Your task to perform on an android device: turn on location history Image 0: 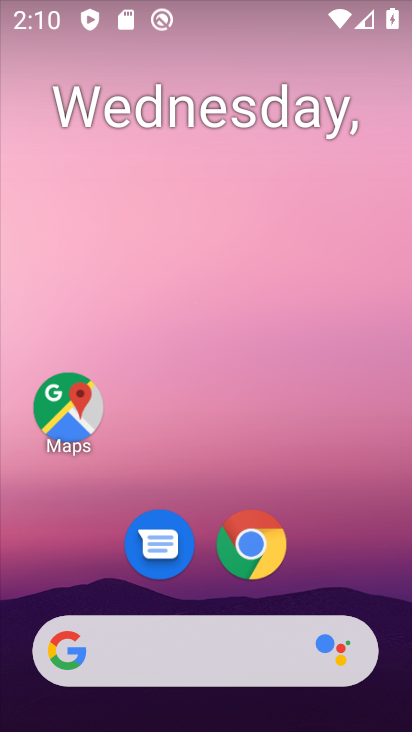
Step 0: drag from (364, 563) to (342, 186)
Your task to perform on an android device: turn on location history Image 1: 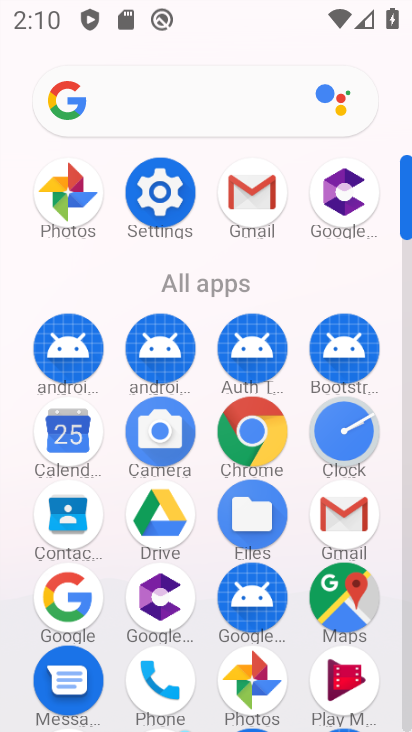
Step 1: click (174, 195)
Your task to perform on an android device: turn on location history Image 2: 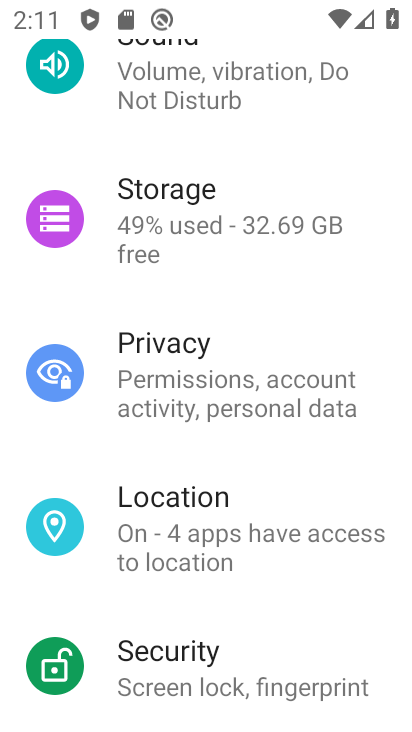
Step 2: click (254, 541)
Your task to perform on an android device: turn on location history Image 3: 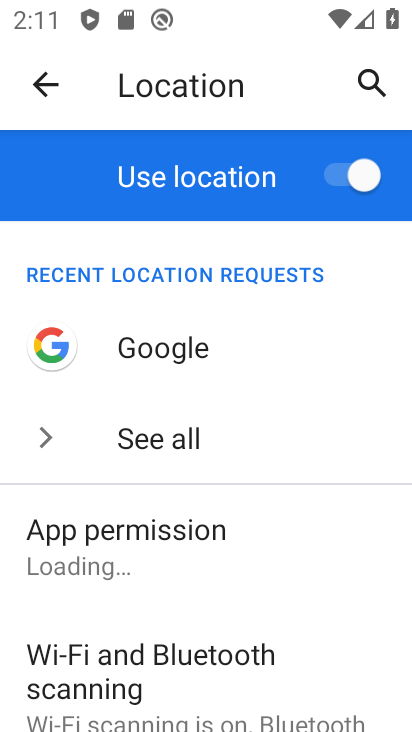
Step 3: drag from (278, 674) to (293, 289)
Your task to perform on an android device: turn on location history Image 4: 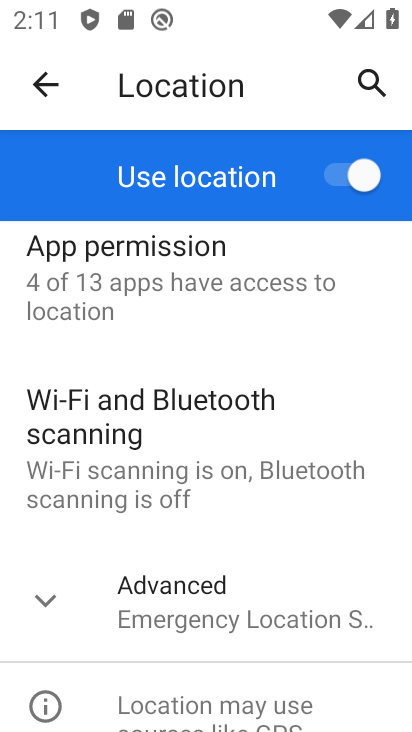
Step 4: click (250, 634)
Your task to perform on an android device: turn on location history Image 5: 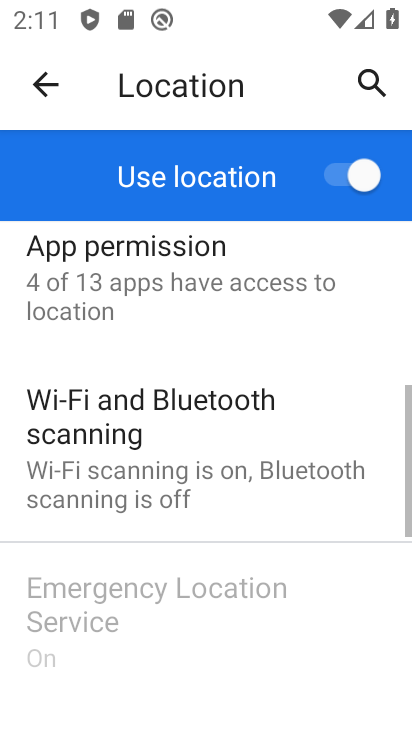
Step 5: task complete